Your task to perform on an android device: turn on javascript in the chrome app Image 0: 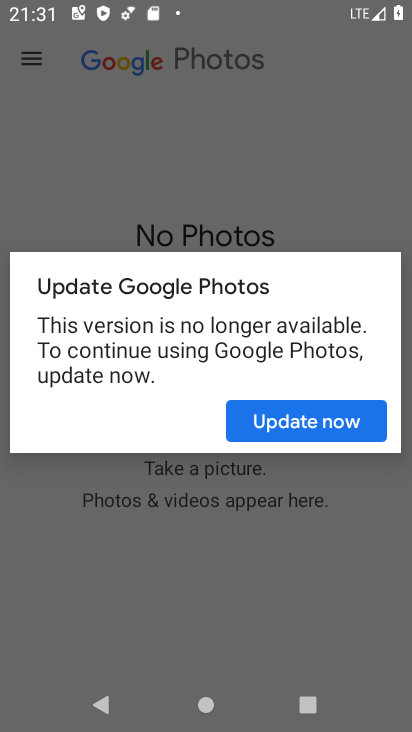
Step 0: press home button
Your task to perform on an android device: turn on javascript in the chrome app Image 1: 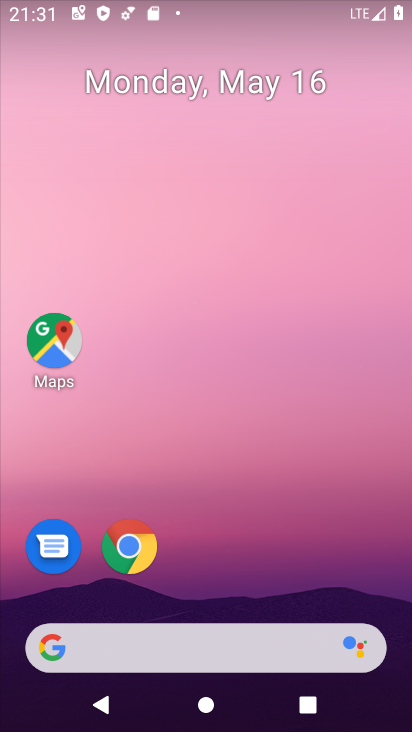
Step 1: drag from (282, 625) to (273, 188)
Your task to perform on an android device: turn on javascript in the chrome app Image 2: 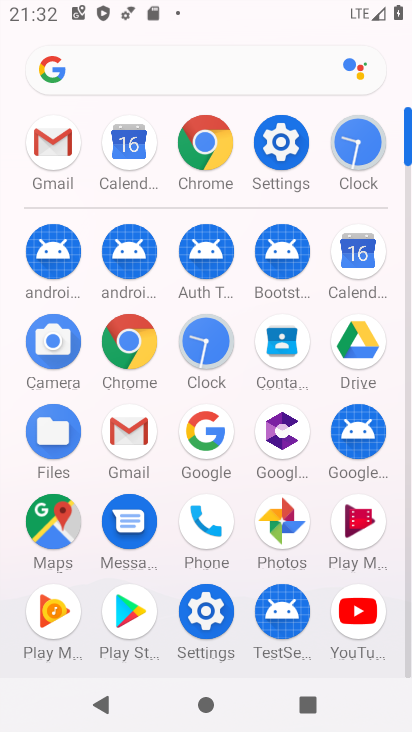
Step 2: click (202, 164)
Your task to perform on an android device: turn on javascript in the chrome app Image 3: 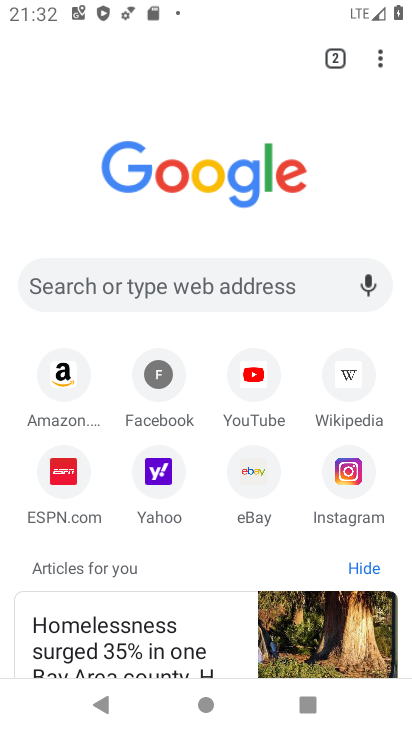
Step 3: click (377, 62)
Your task to perform on an android device: turn on javascript in the chrome app Image 4: 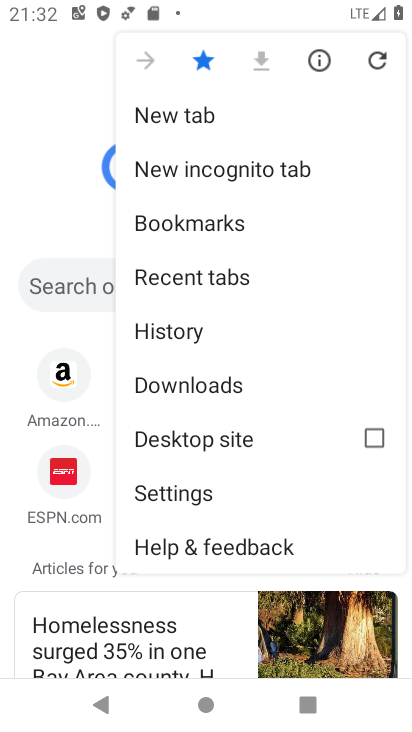
Step 4: click (210, 488)
Your task to perform on an android device: turn on javascript in the chrome app Image 5: 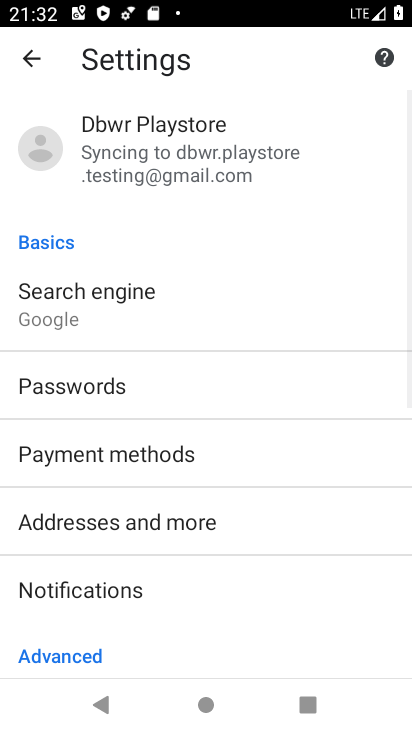
Step 5: drag from (139, 537) to (209, 349)
Your task to perform on an android device: turn on javascript in the chrome app Image 6: 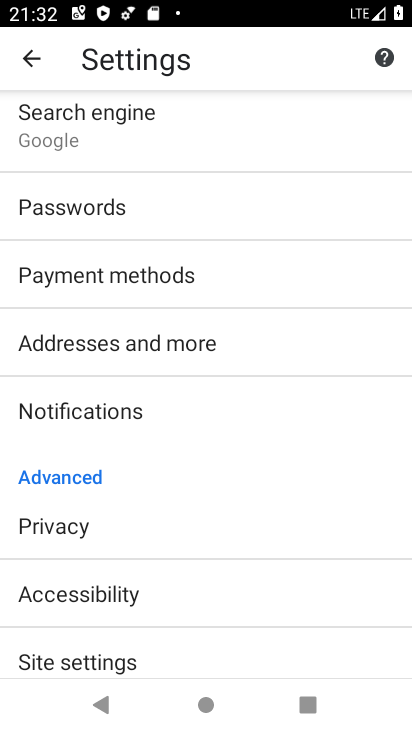
Step 6: click (108, 639)
Your task to perform on an android device: turn on javascript in the chrome app Image 7: 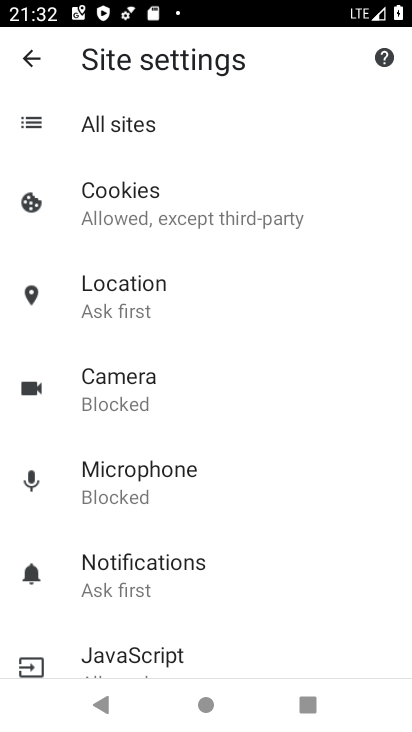
Step 7: click (154, 670)
Your task to perform on an android device: turn on javascript in the chrome app Image 8: 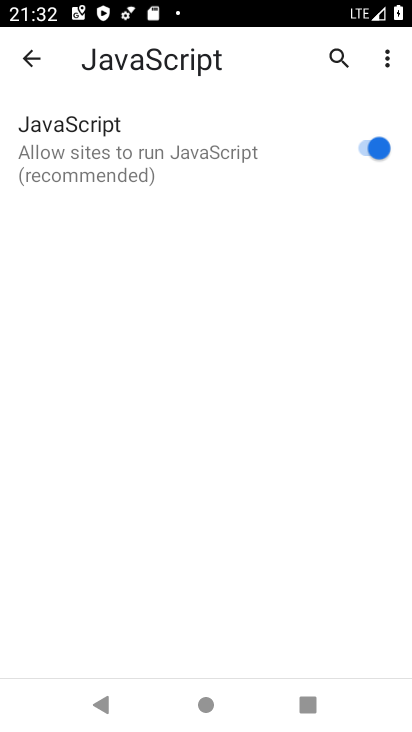
Step 8: click (390, 130)
Your task to perform on an android device: turn on javascript in the chrome app Image 9: 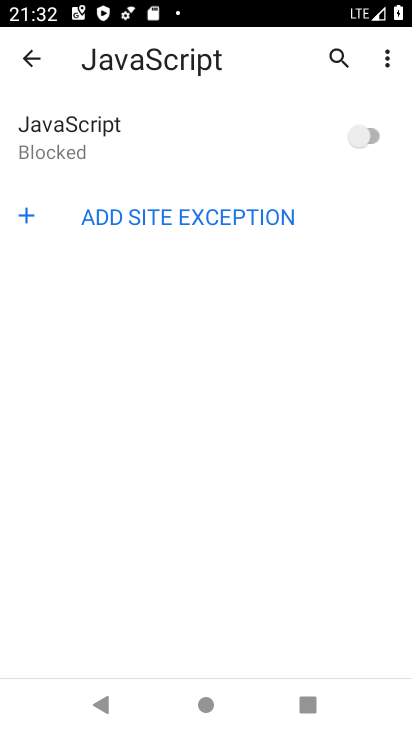
Step 9: click (381, 135)
Your task to perform on an android device: turn on javascript in the chrome app Image 10: 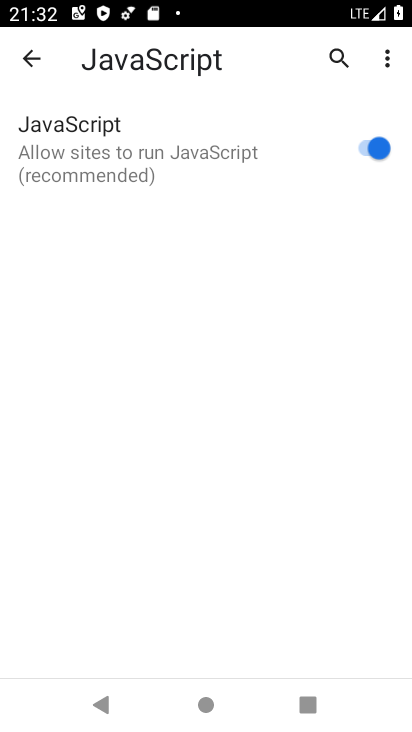
Step 10: task complete